Your task to perform on an android device: Open internet settings Image 0: 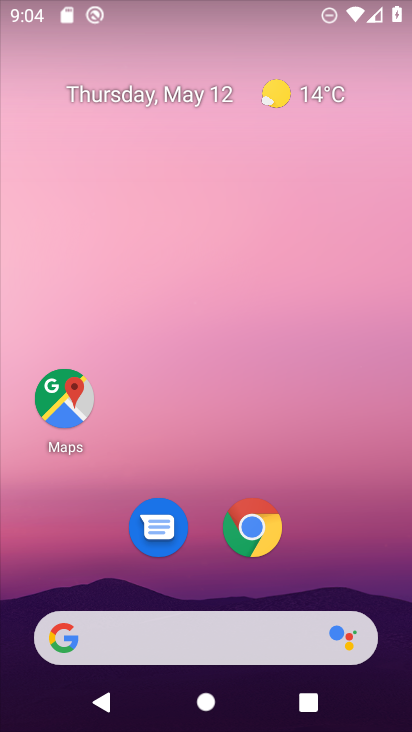
Step 0: drag from (320, 584) to (308, 30)
Your task to perform on an android device: Open internet settings Image 1: 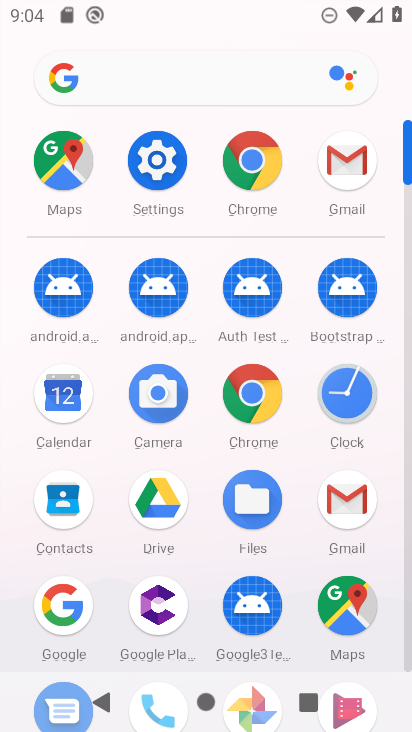
Step 1: click (171, 150)
Your task to perform on an android device: Open internet settings Image 2: 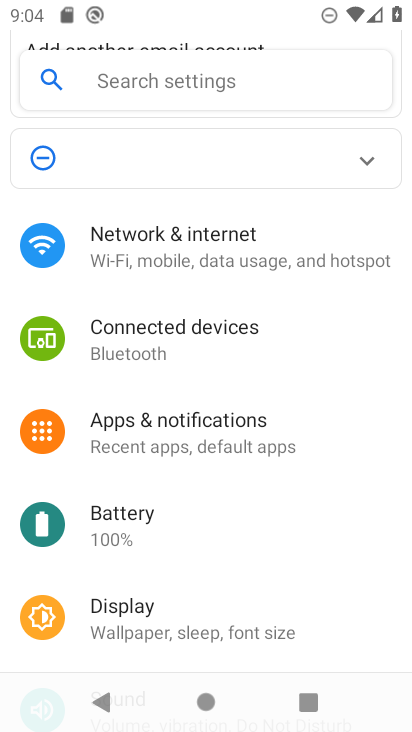
Step 2: click (224, 244)
Your task to perform on an android device: Open internet settings Image 3: 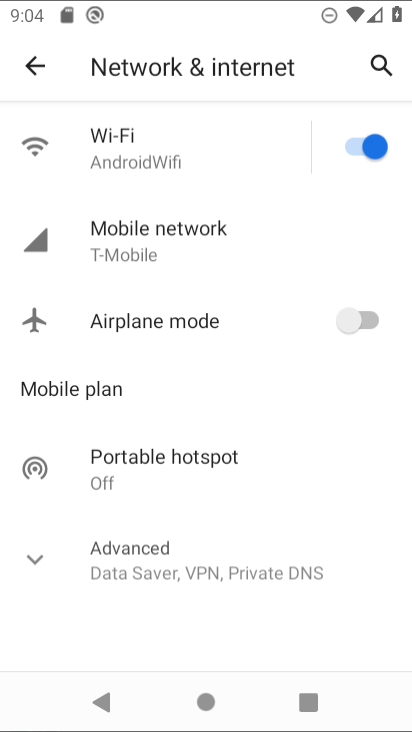
Step 3: task complete